Your task to perform on an android device: turn off location history Image 0: 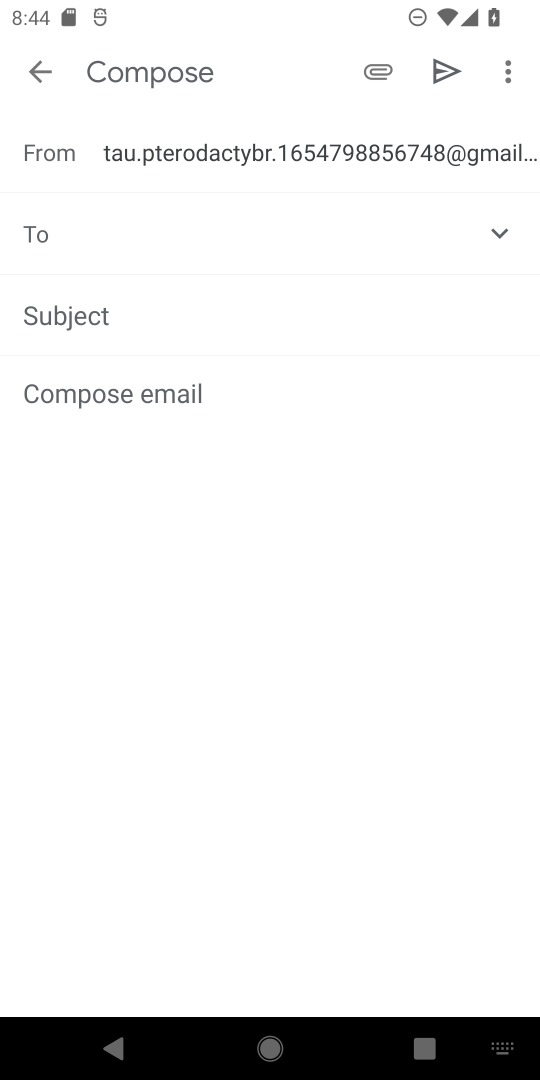
Step 0: press home button
Your task to perform on an android device: turn off location history Image 1: 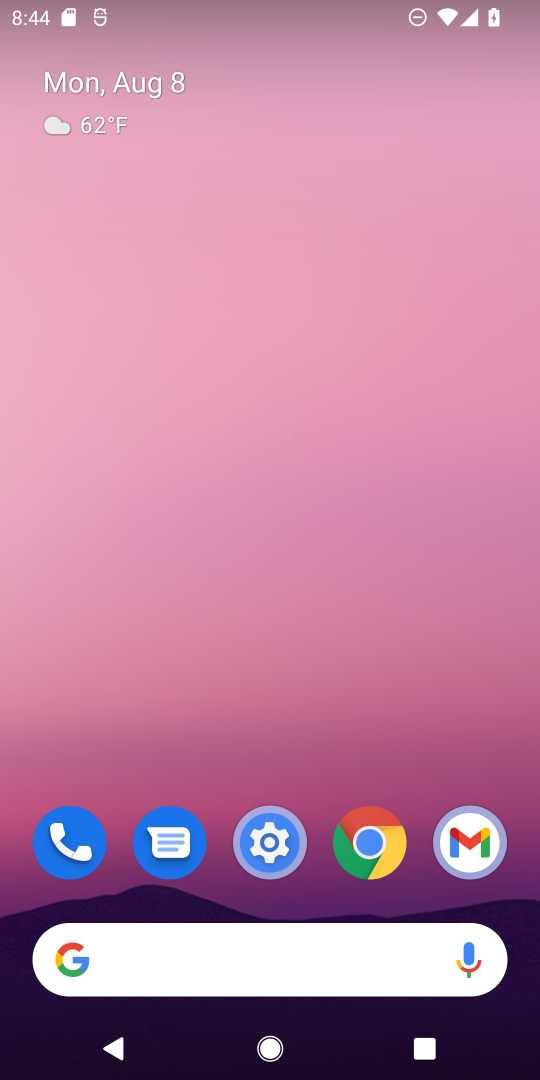
Step 1: drag from (327, 510) to (373, 3)
Your task to perform on an android device: turn off location history Image 2: 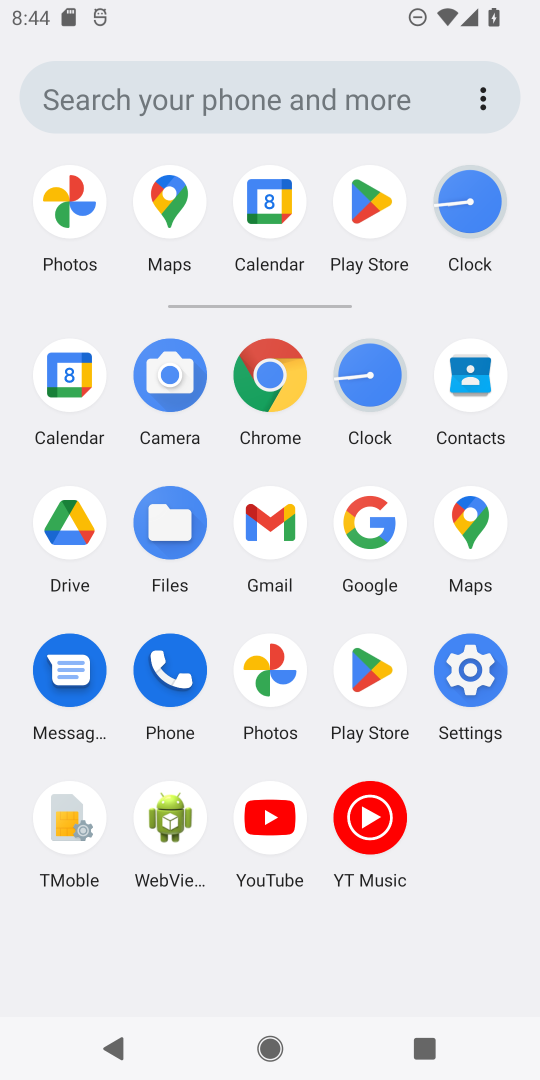
Step 2: click (465, 662)
Your task to perform on an android device: turn off location history Image 3: 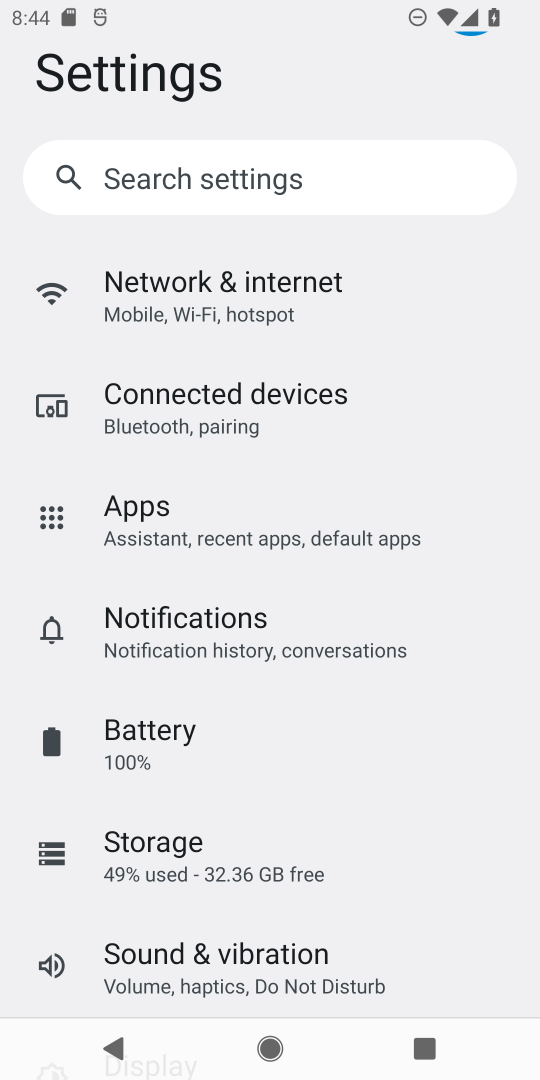
Step 3: drag from (301, 808) to (355, 0)
Your task to perform on an android device: turn off location history Image 4: 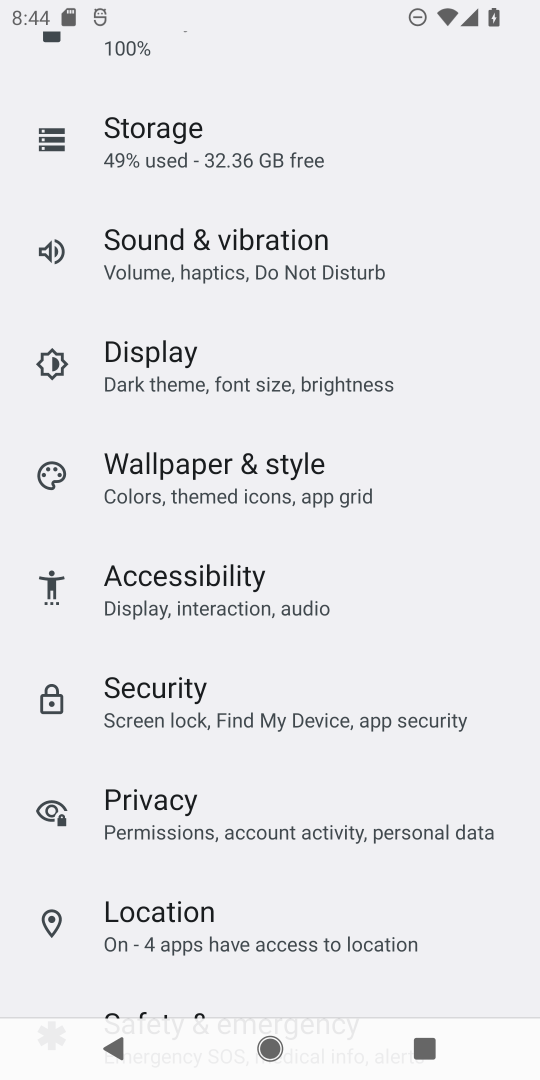
Step 4: click (218, 920)
Your task to perform on an android device: turn off location history Image 5: 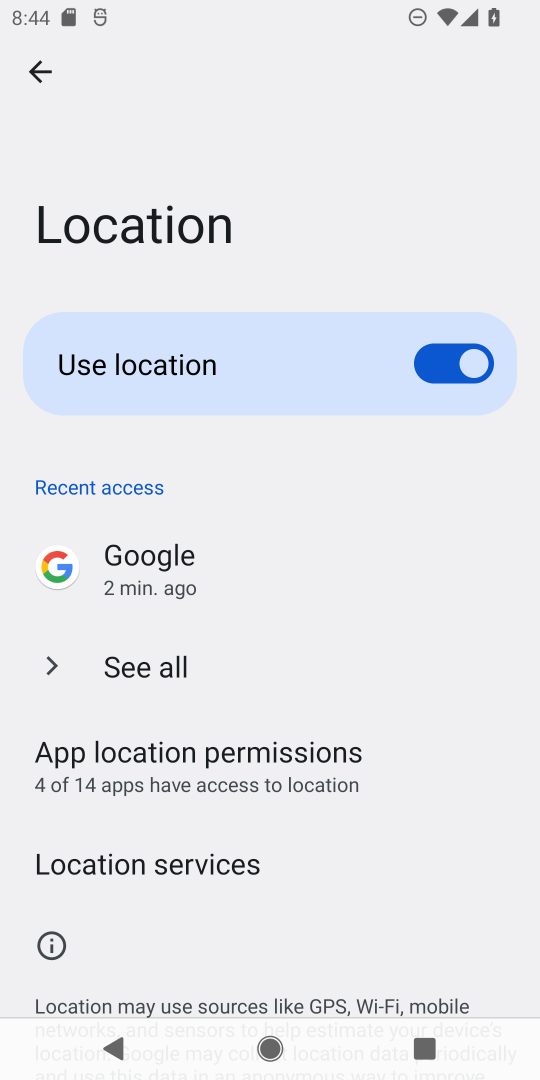
Step 5: drag from (312, 672) to (336, 387)
Your task to perform on an android device: turn off location history Image 6: 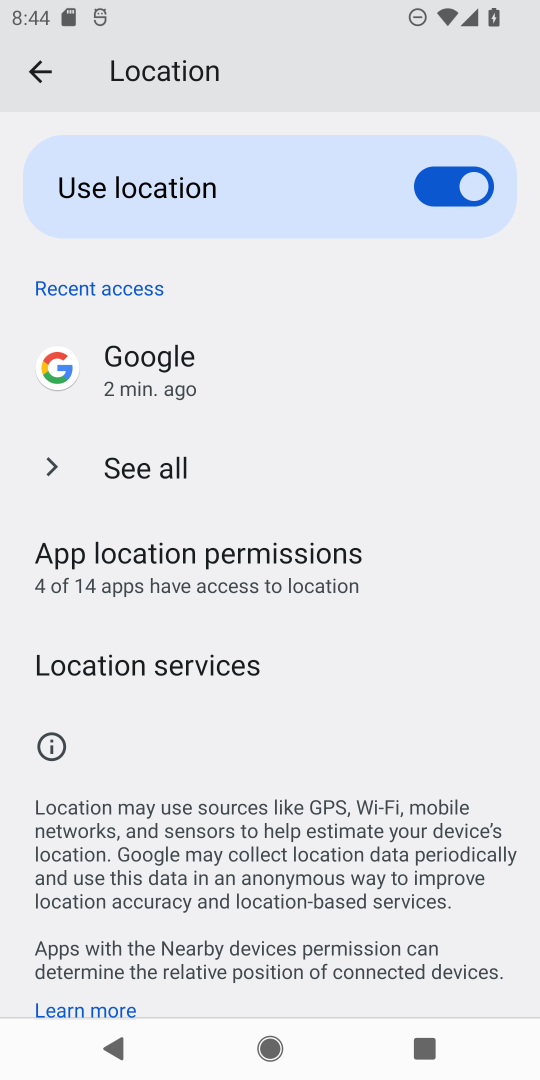
Step 6: click (235, 658)
Your task to perform on an android device: turn off location history Image 7: 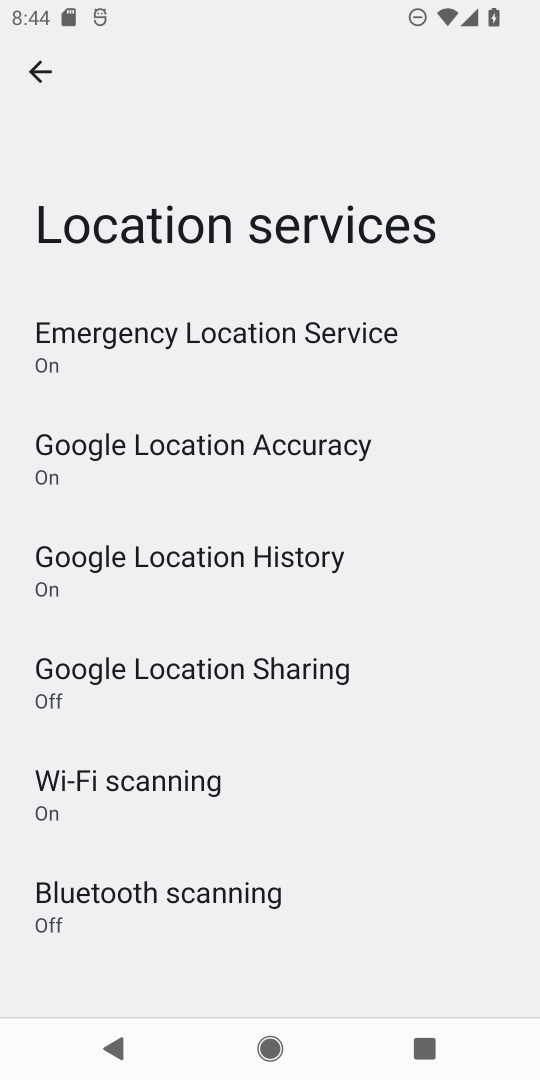
Step 7: click (250, 573)
Your task to perform on an android device: turn off location history Image 8: 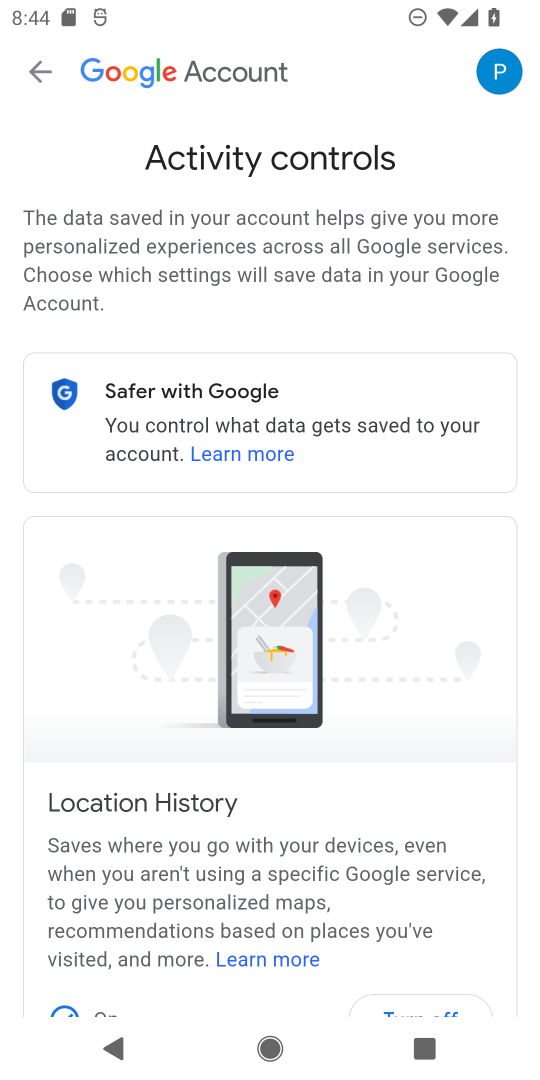
Step 8: drag from (373, 595) to (406, 319)
Your task to perform on an android device: turn off location history Image 9: 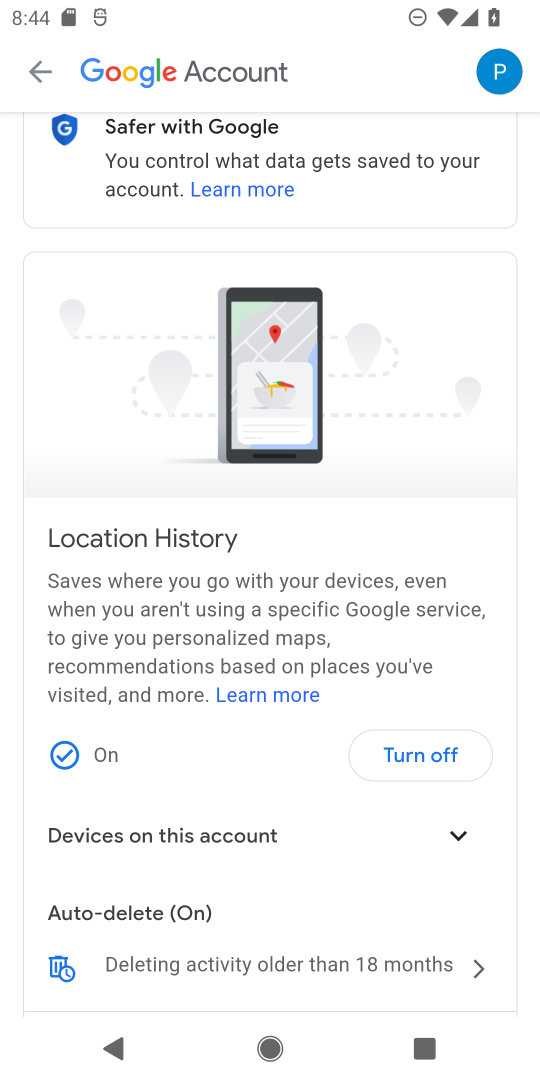
Step 9: click (413, 744)
Your task to perform on an android device: turn off location history Image 10: 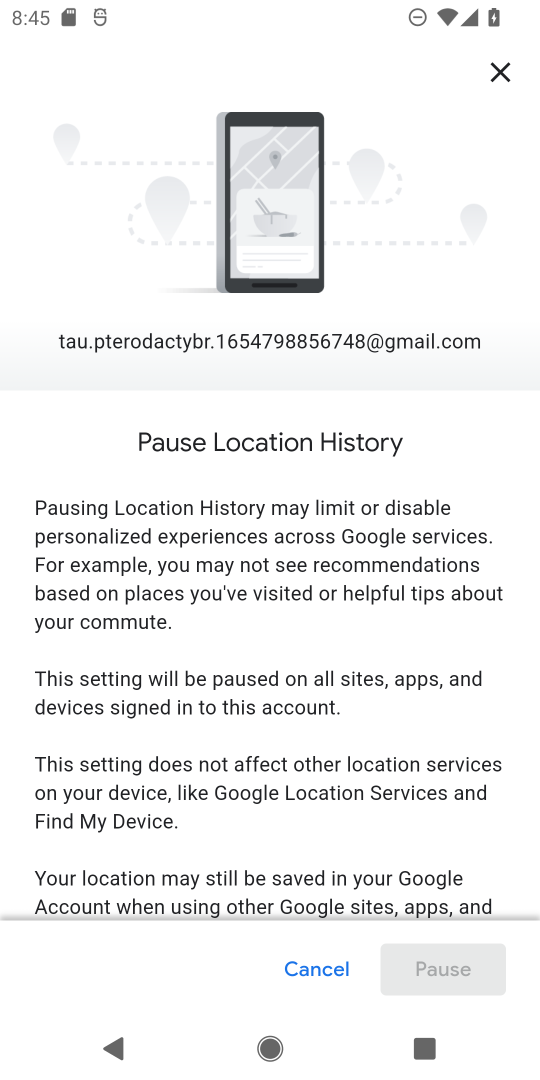
Step 10: drag from (291, 828) to (362, 127)
Your task to perform on an android device: turn off location history Image 11: 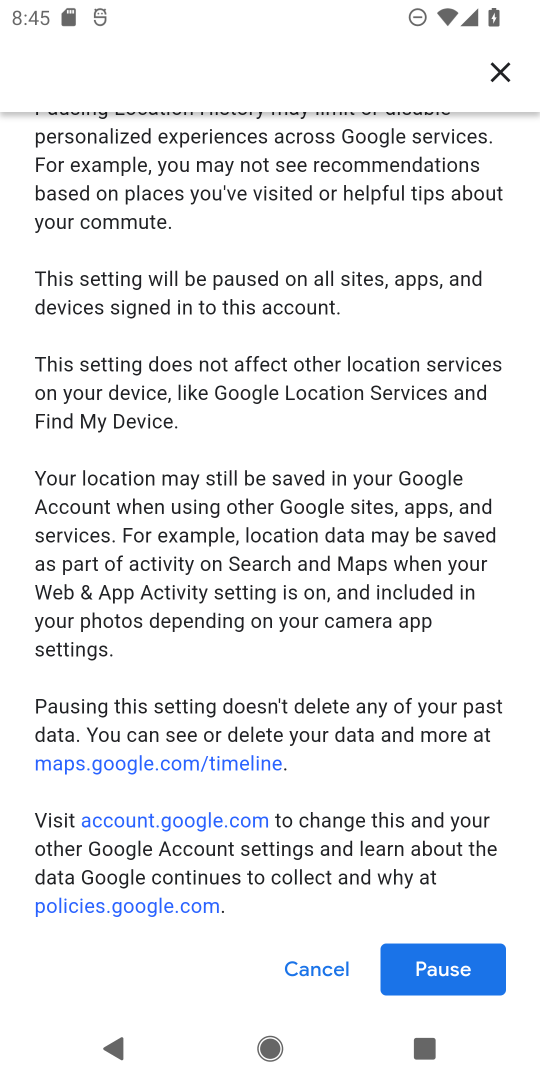
Step 11: click (463, 971)
Your task to perform on an android device: turn off location history Image 12: 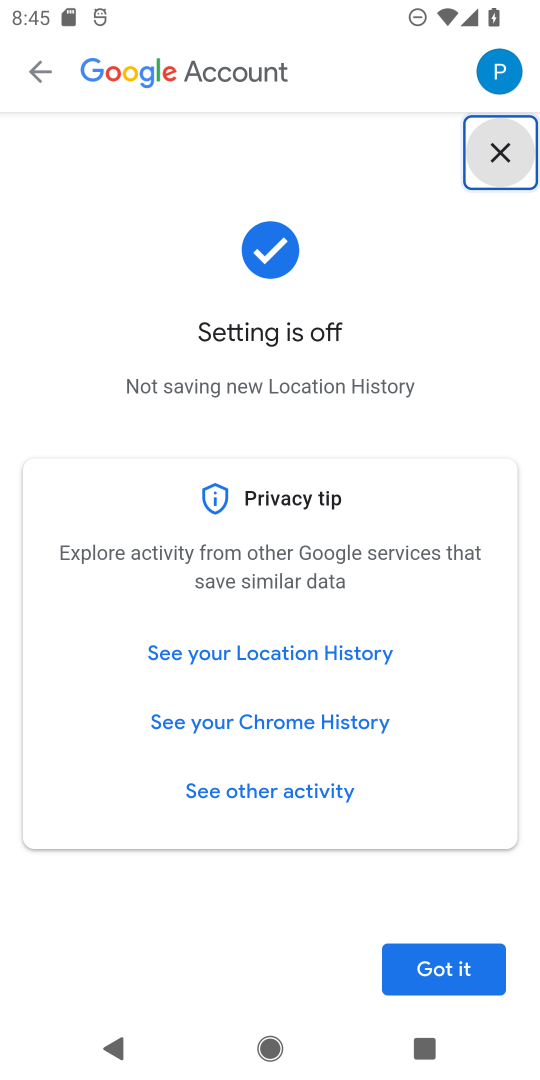
Step 12: task complete